Your task to perform on an android device: When is my next appointment? Image 0: 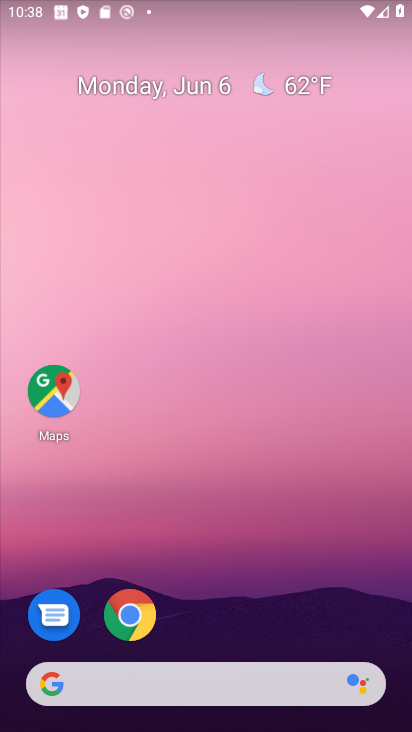
Step 0: drag from (185, 676) to (231, 189)
Your task to perform on an android device: When is my next appointment? Image 1: 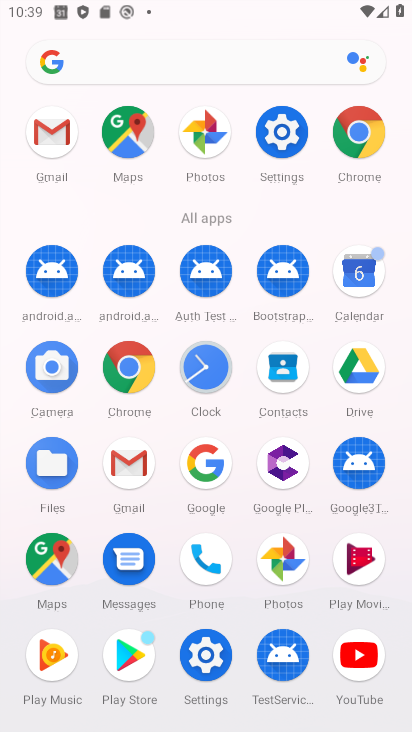
Step 1: click (373, 266)
Your task to perform on an android device: When is my next appointment? Image 2: 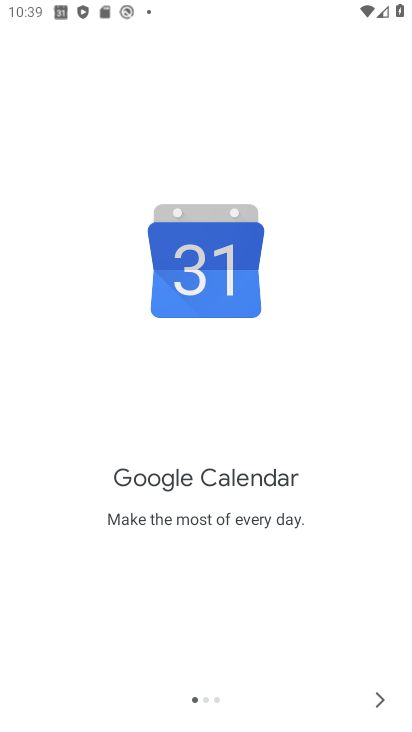
Step 2: click (377, 698)
Your task to perform on an android device: When is my next appointment? Image 3: 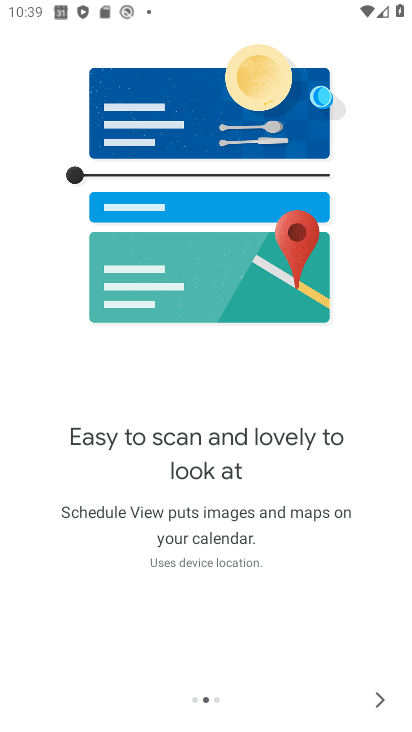
Step 3: click (377, 698)
Your task to perform on an android device: When is my next appointment? Image 4: 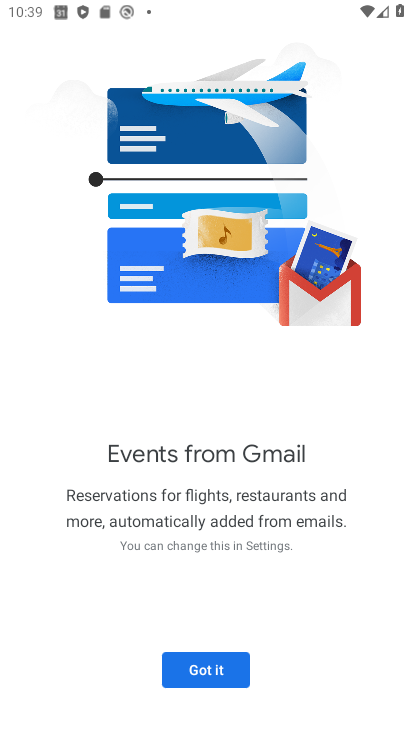
Step 4: click (194, 671)
Your task to perform on an android device: When is my next appointment? Image 5: 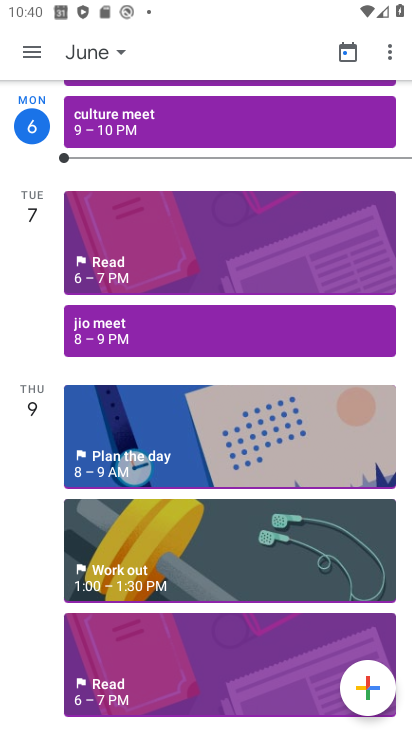
Step 5: task complete